Your task to perform on an android device: Clear the cart on amazon. Image 0: 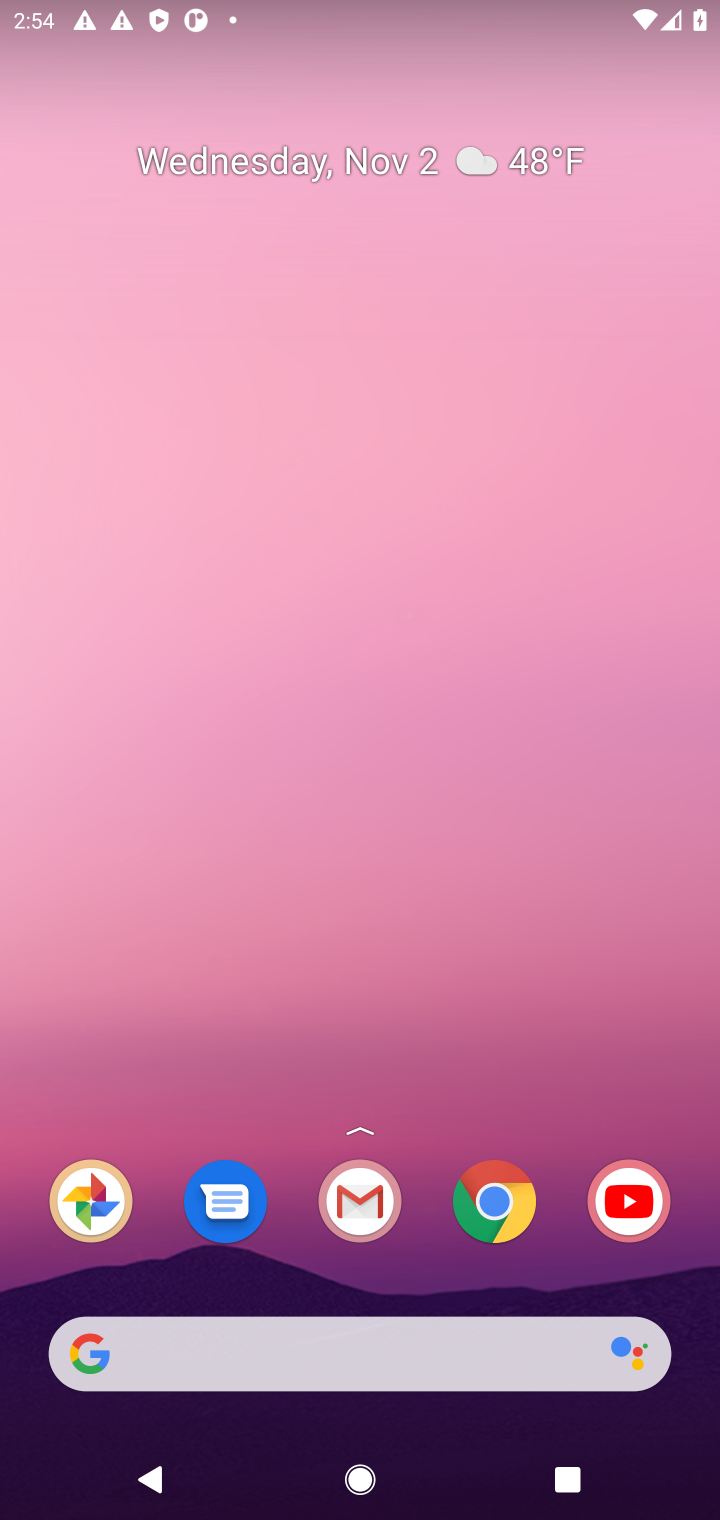
Step 0: click (487, 1196)
Your task to perform on an android device: Clear the cart on amazon. Image 1: 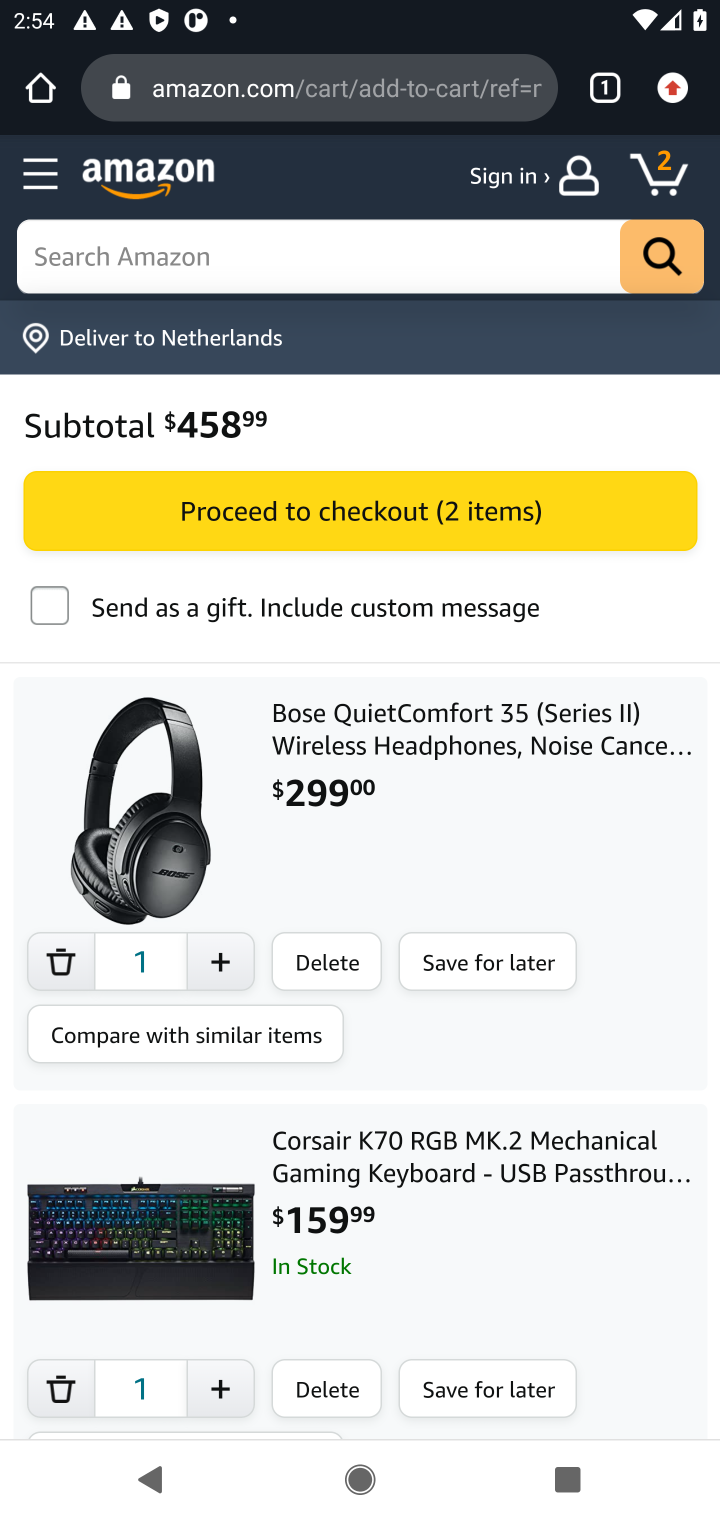
Step 1: click (683, 167)
Your task to perform on an android device: Clear the cart on amazon. Image 2: 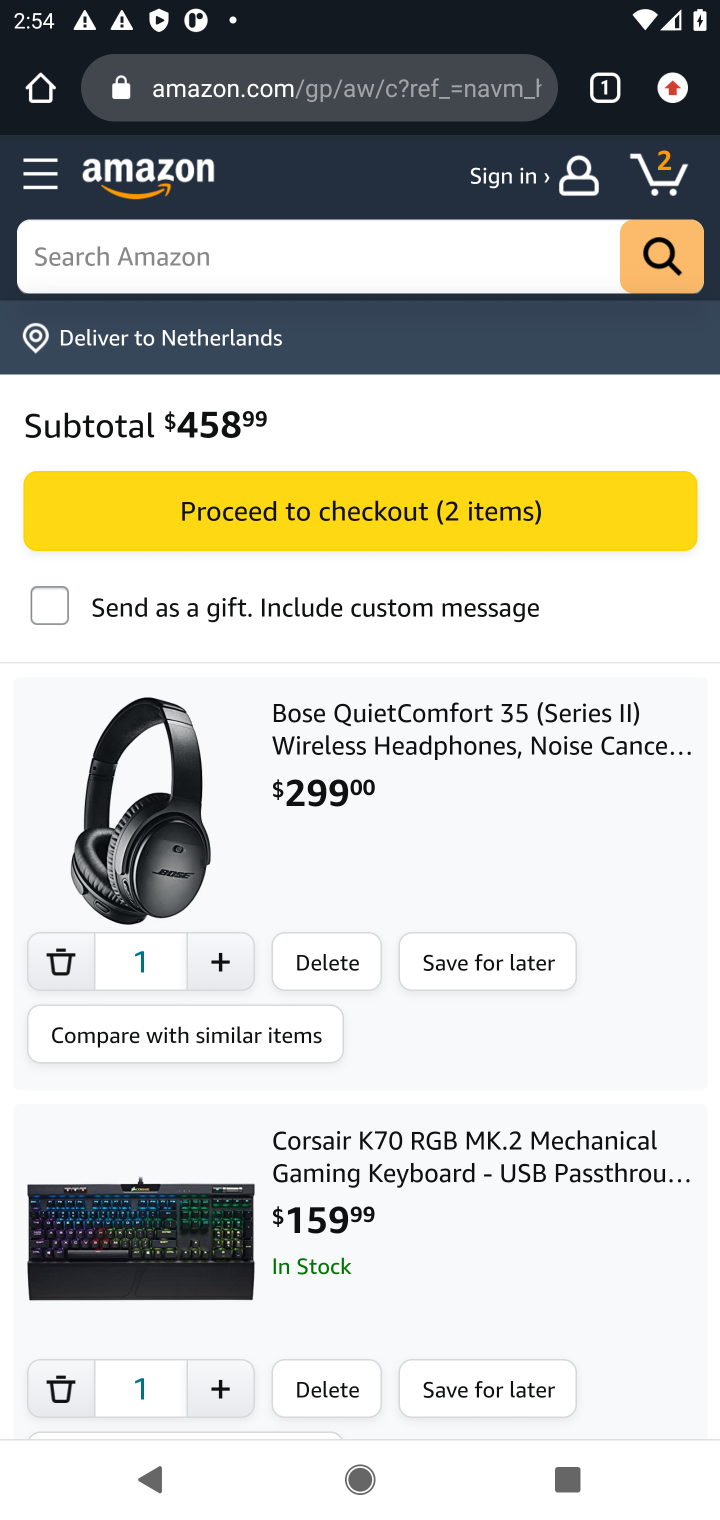
Step 2: click (667, 165)
Your task to perform on an android device: Clear the cart on amazon. Image 3: 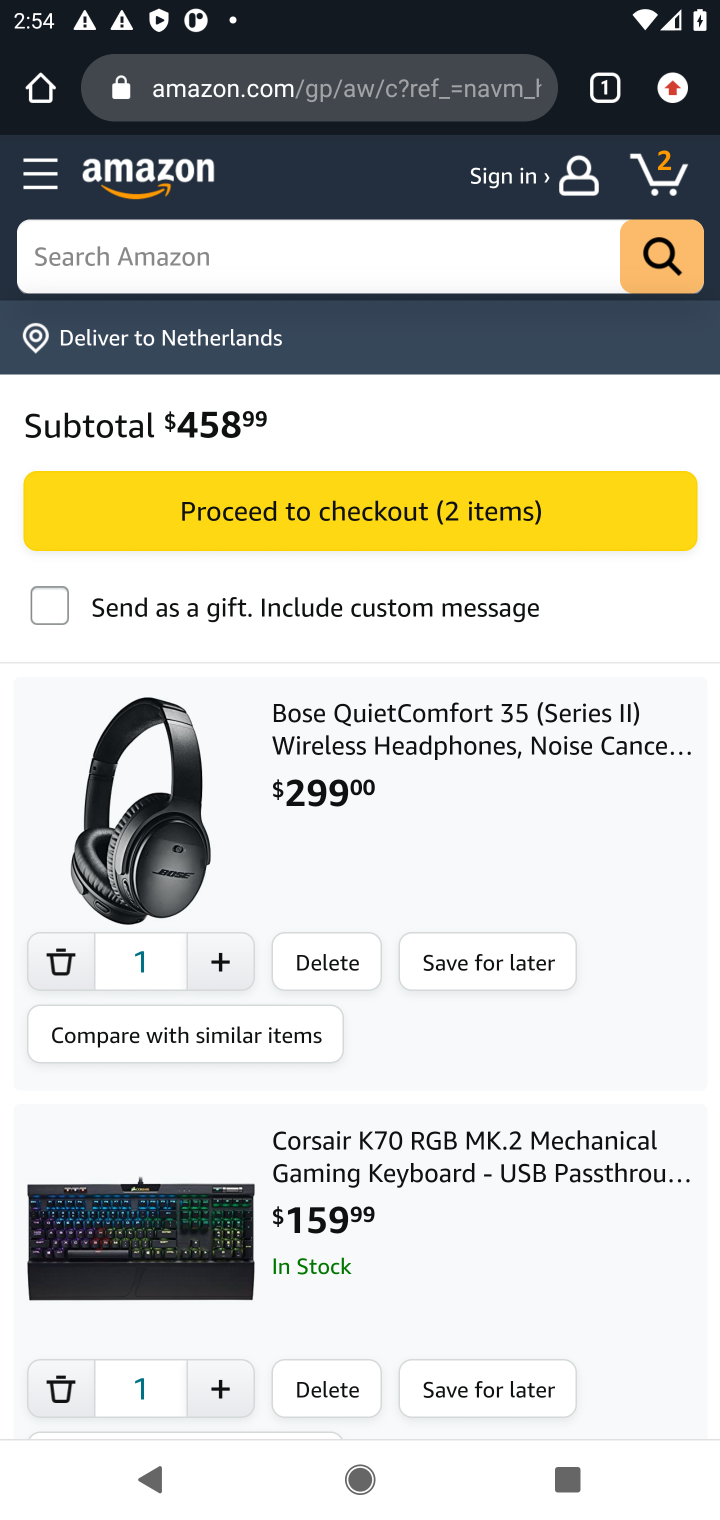
Step 3: click (326, 974)
Your task to perform on an android device: Clear the cart on amazon. Image 4: 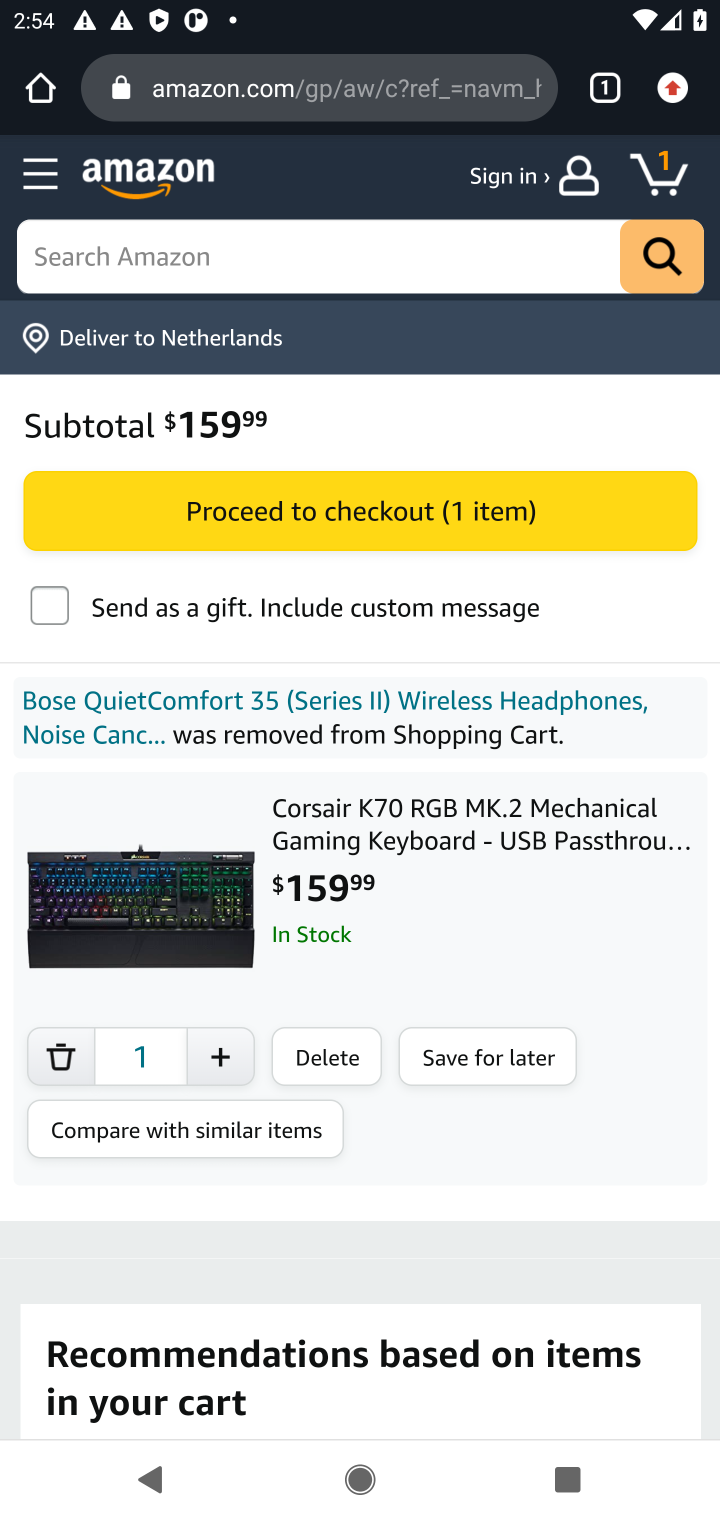
Step 4: click (331, 1050)
Your task to perform on an android device: Clear the cart on amazon. Image 5: 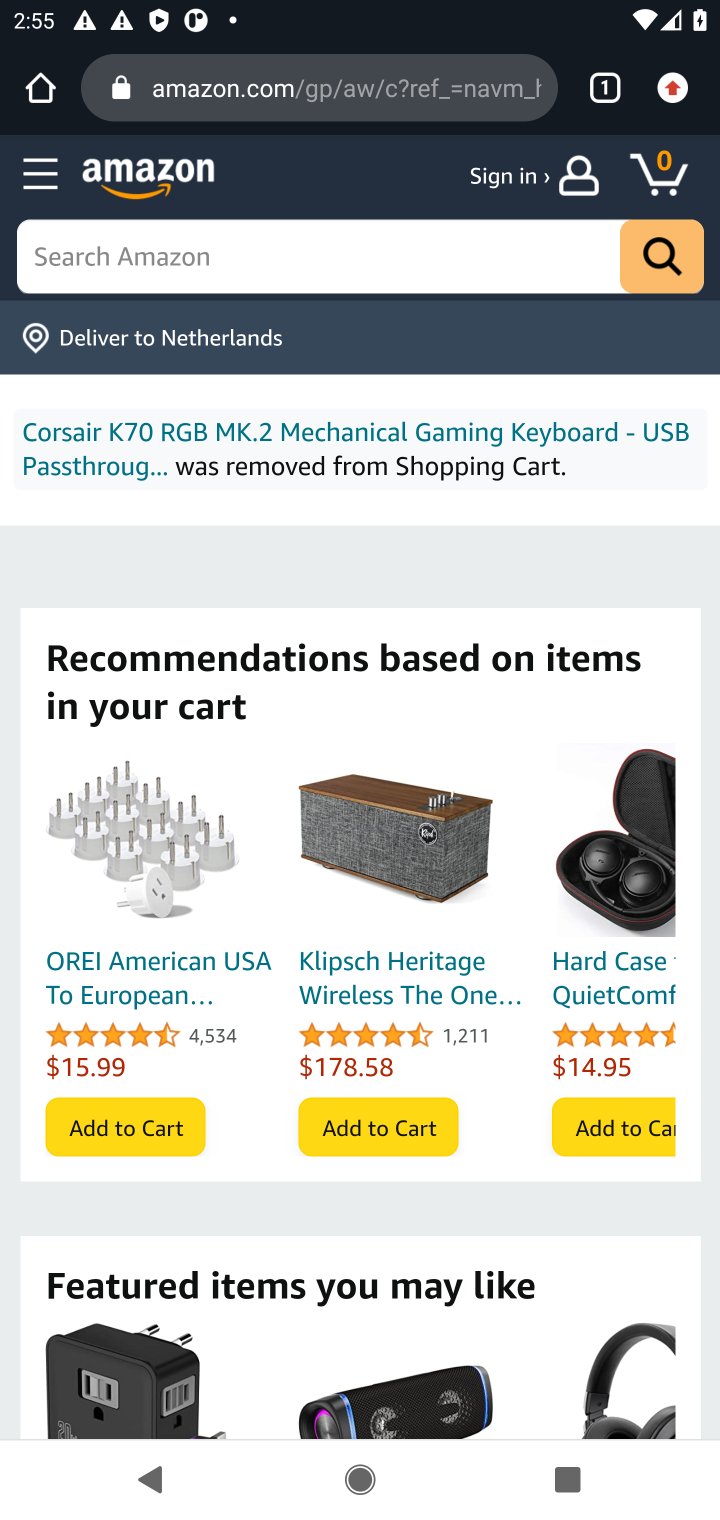
Step 5: task complete